Your task to perform on an android device: check google app version Image 0: 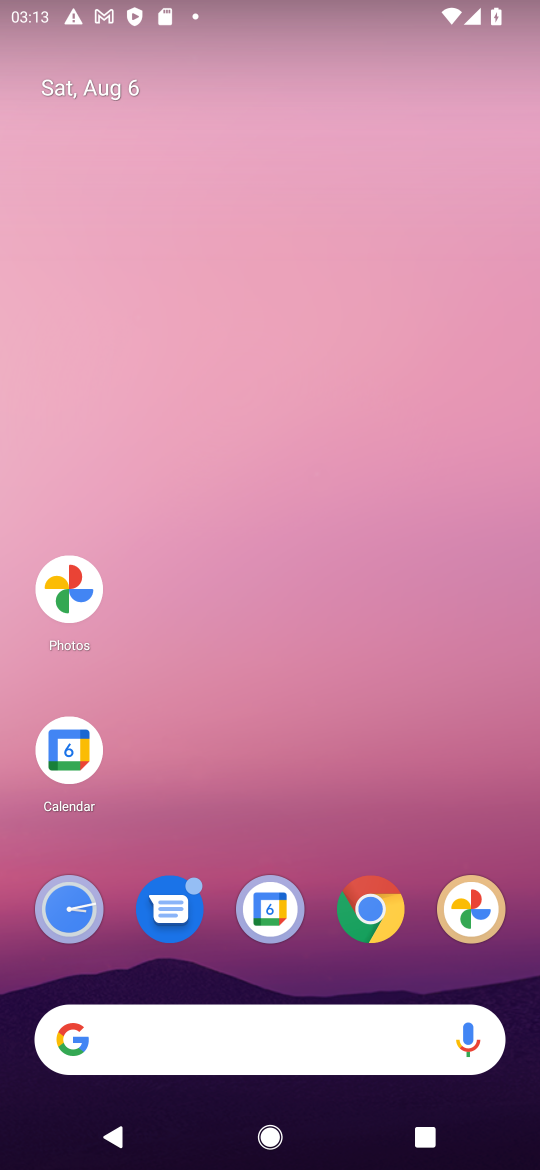
Step 0: click (69, 1036)
Your task to perform on an android device: check google app version Image 1: 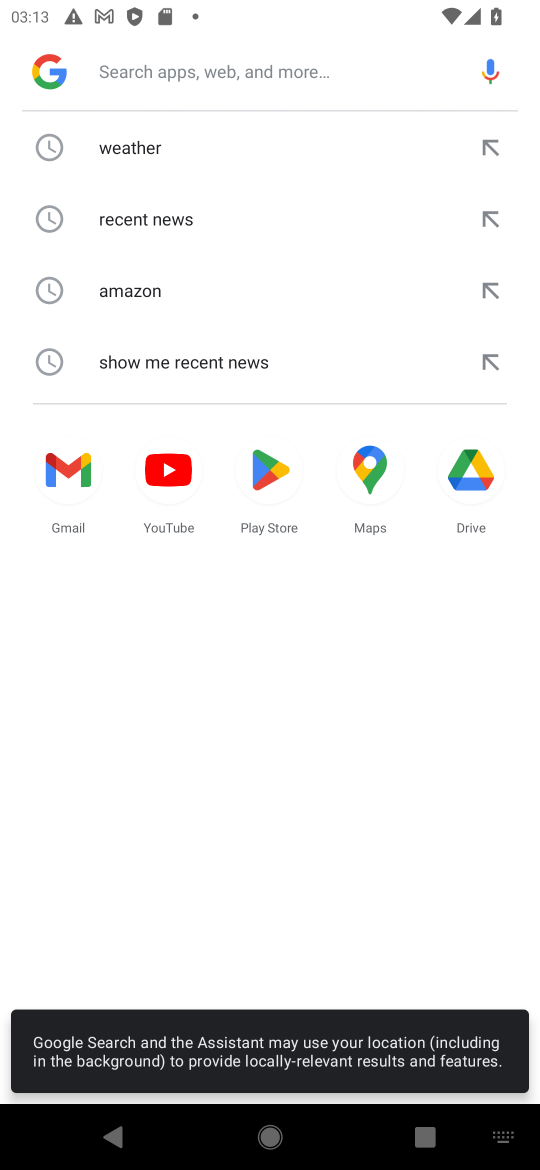
Step 1: click (41, 69)
Your task to perform on an android device: check google app version Image 2: 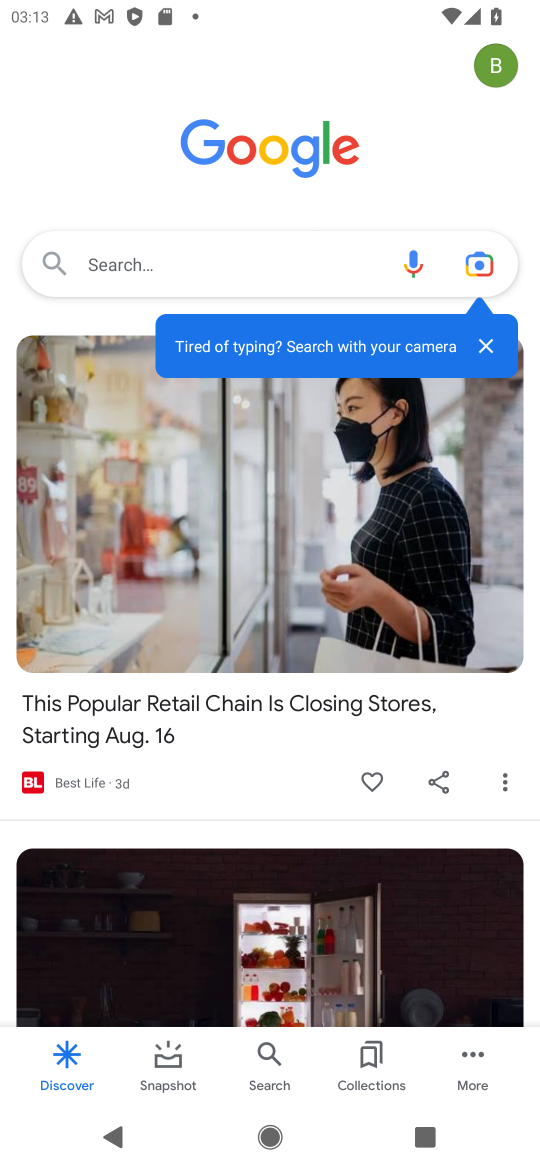
Step 2: click (477, 1050)
Your task to perform on an android device: check google app version Image 3: 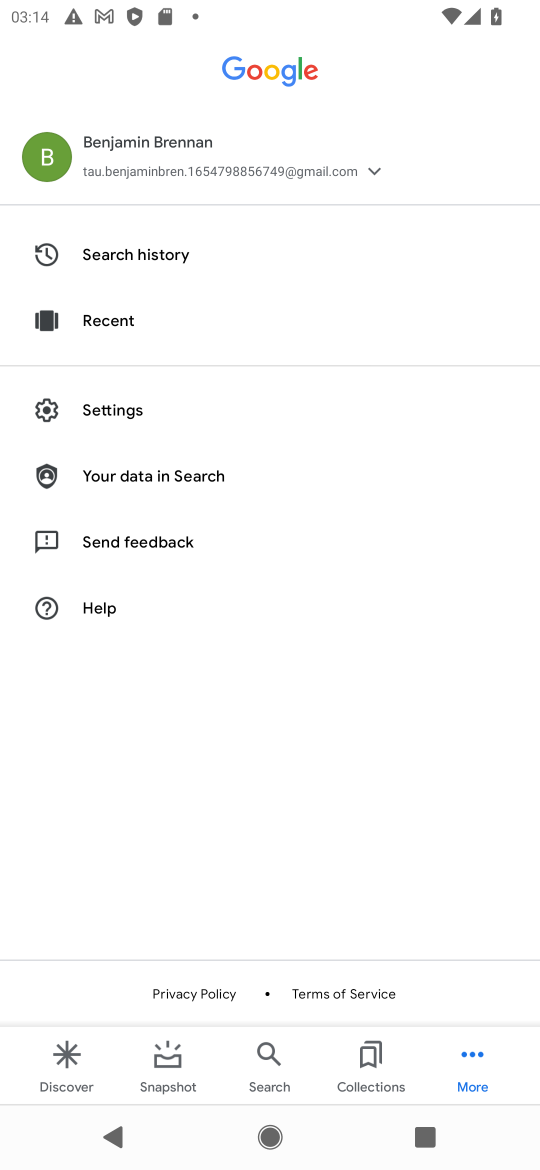
Step 3: click (106, 408)
Your task to perform on an android device: check google app version Image 4: 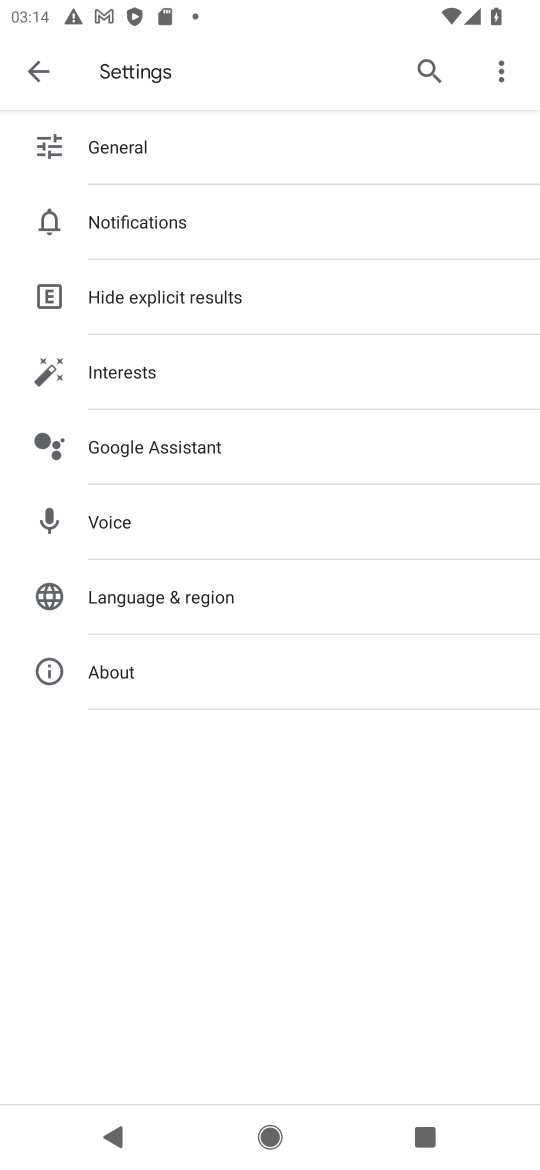
Step 4: click (108, 666)
Your task to perform on an android device: check google app version Image 5: 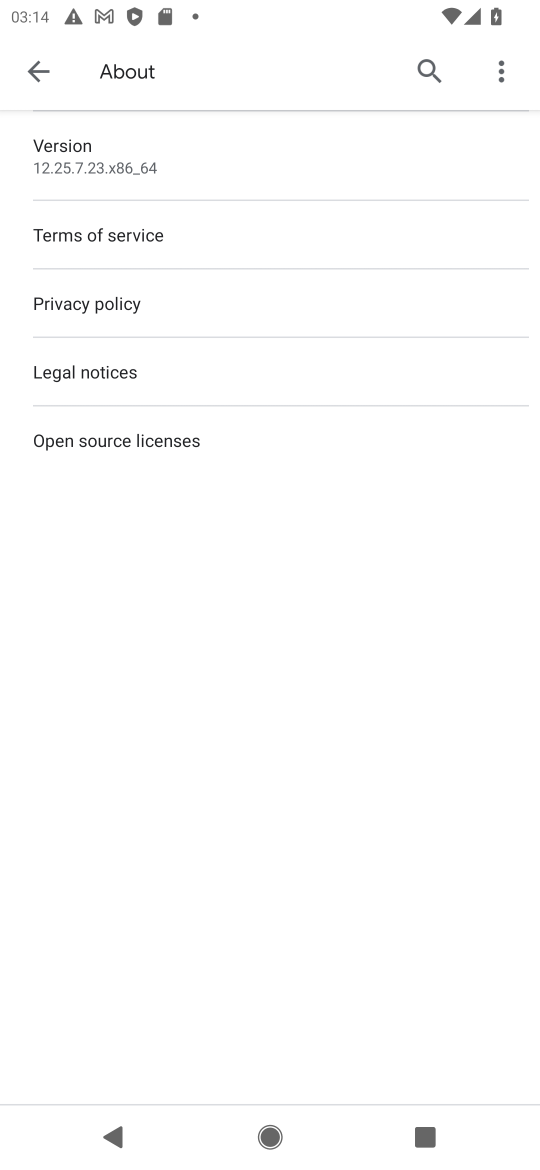
Step 5: task complete